Your task to perform on an android device: change the upload size in google photos Image 0: 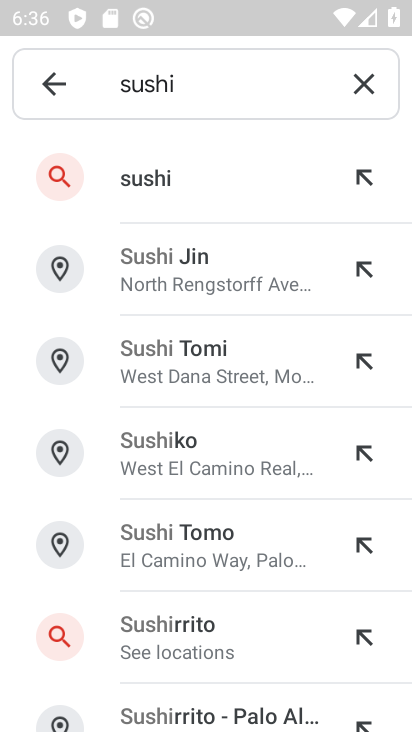
Step 0: press home button
Your task to perform on an android device: change the upload size in google photos Image 1: 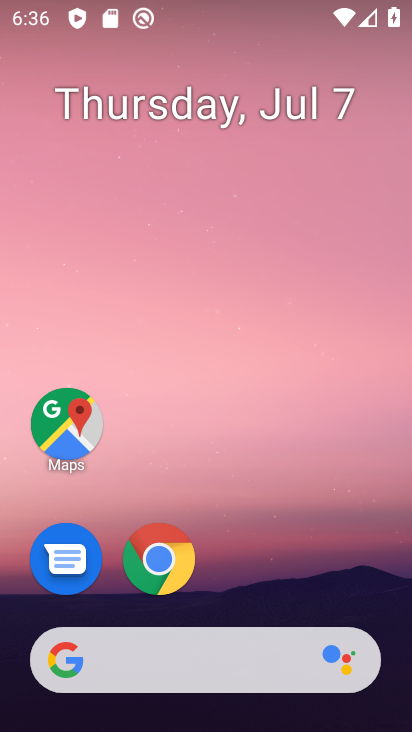
Step 1: drag from (182, 617) to (298, 158)
Your task to perform on an android device: change the upload size in google photos Image 2: 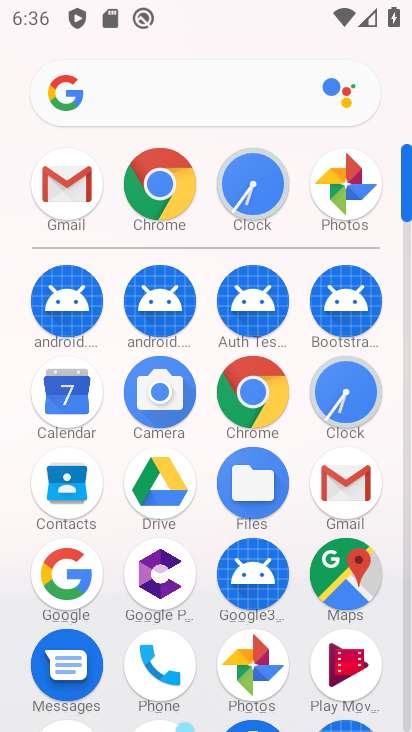
Step 2: click (243, 651)
Your task to perform on an android device: change the upload size in google photos Image 3: 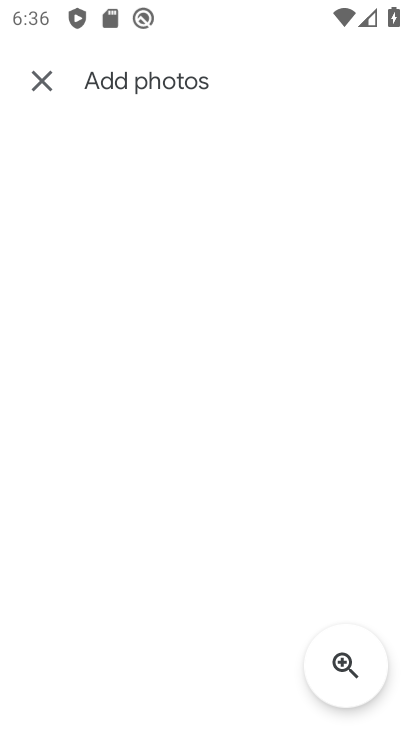
Step 3: click (45, 88)
Your task to perform on an android device: change the upload size in google photos Image 4: 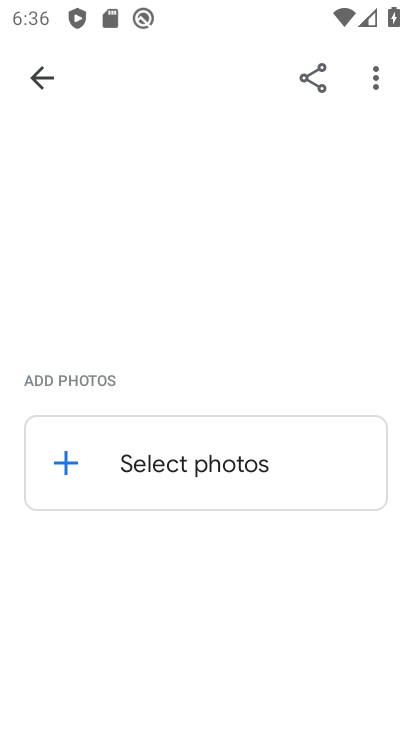
Step 4: click (45, 88)
Your task to perform on an android device: change the upload size in google photos Image 5: 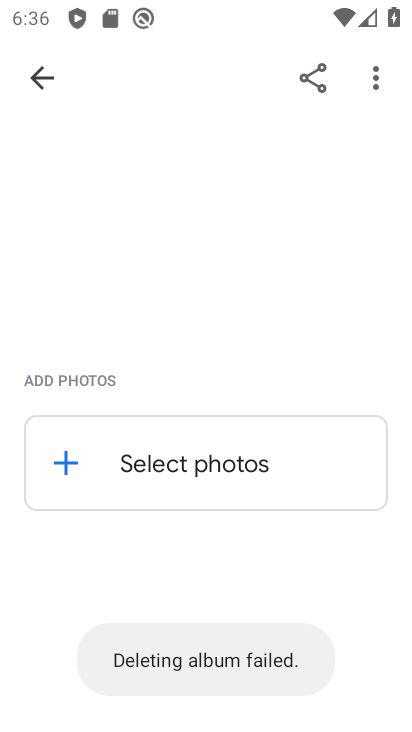
Step 5: click (45, 88)
Your task to perform on an android device: change the upload size in google photos Image 6: 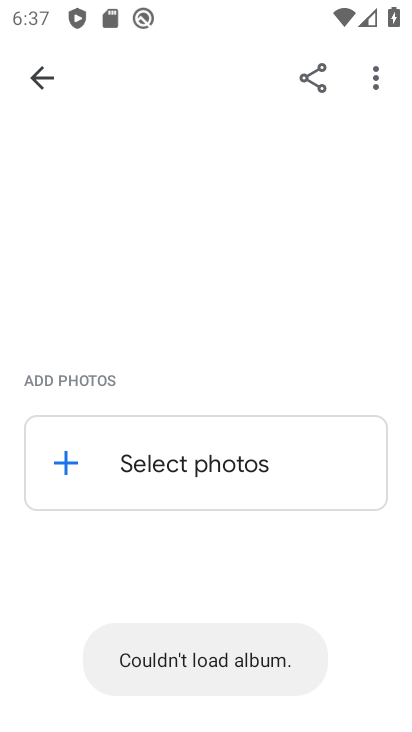
Step 6: click (45, 88)
Your task to perform on an android device: change the upload size in google photos Image 7: 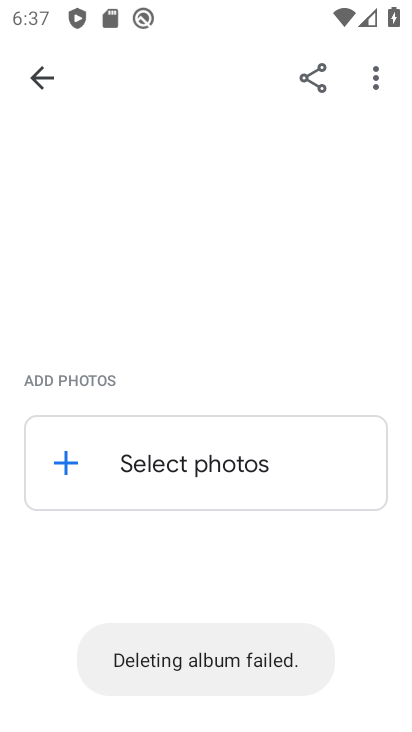
Step 7: click (45, 88)
Your task to perform on an android device: change the upload size in google photos Image 8: 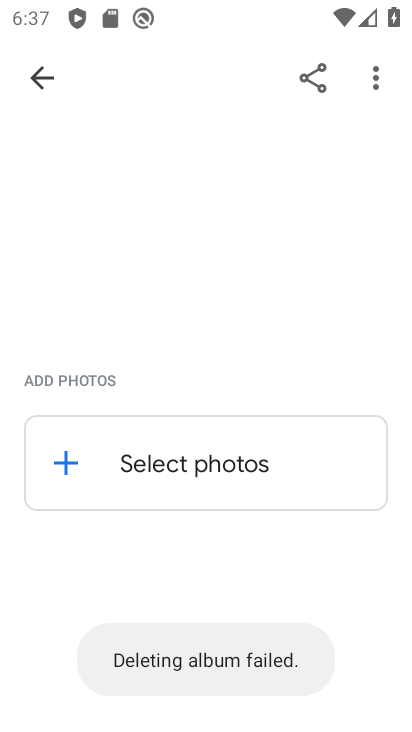
Step 8: task complete